Your task to perform on an android device: visit the assistant section in the google photos Image 0: 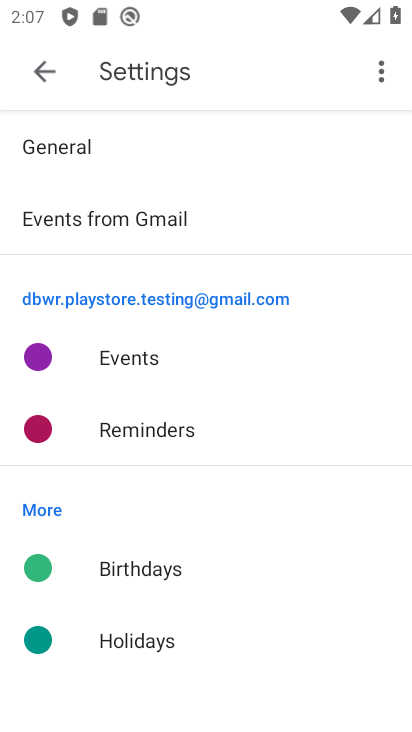
Step 0: press home button
Your task to perform on an android device: visit the assistant section in the google photos Image 1: 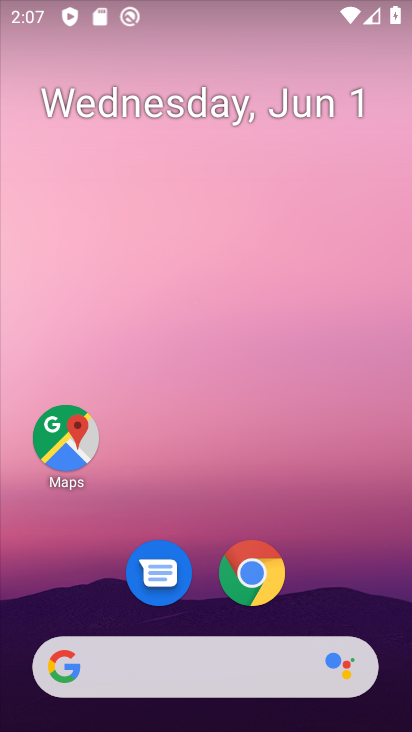
Step 1: drag from (204, 605) to (179, 150)
Your task to perform on an android device: visit the assistant section in the google photos Image 2: 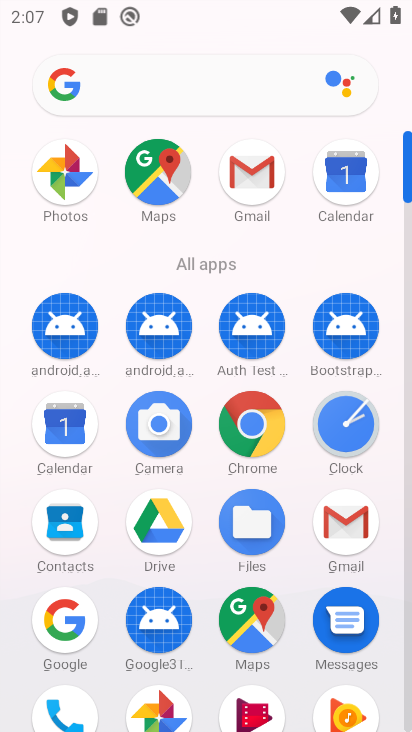
Step 2: click (56, 153)
Your task to perform on an android device: visit the assistant section in the google photos Image 3: 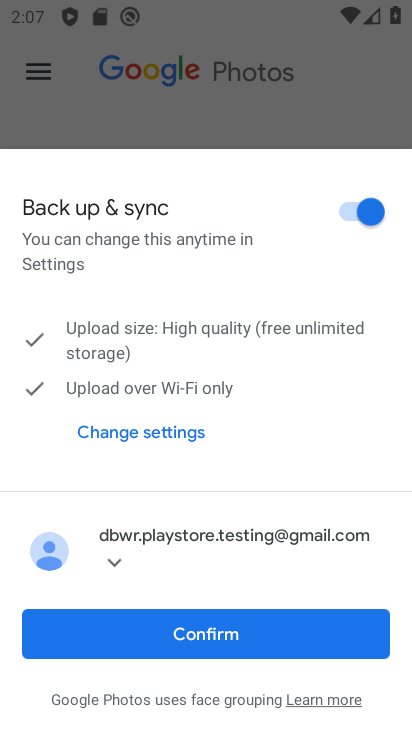
Step 3: click (291, 622)
Your task to perform on an android device: visit the assistant section in the google photos Image 4: 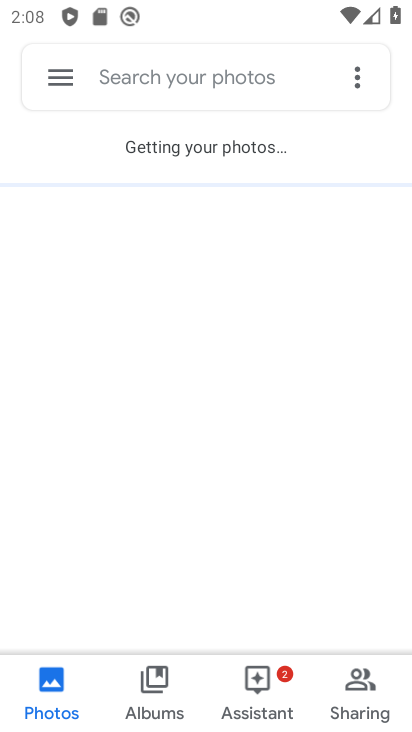
Step 4: click (242, 679)
Your task to perform on an android device: visit the assistant section in the google photos Image 5: 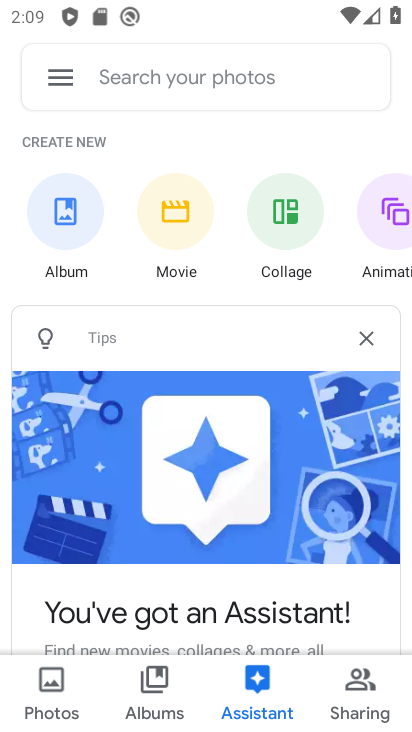
Step 5: task complete